Your task to perform on an android device: Open Android settings Image 0: 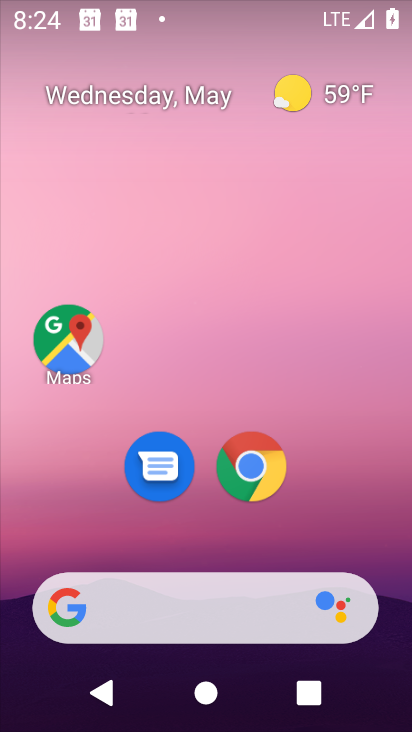
Step 0: drag from (333, 517) to (316, 220)
Your task to perform on an android device: Open Android settings Image 1: 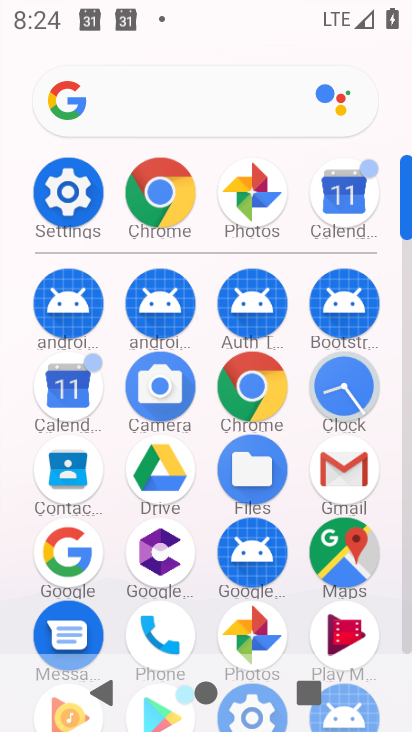
Step 1: click (63, 188)
Your task to perform on an android device: Open Android settings Image 2: 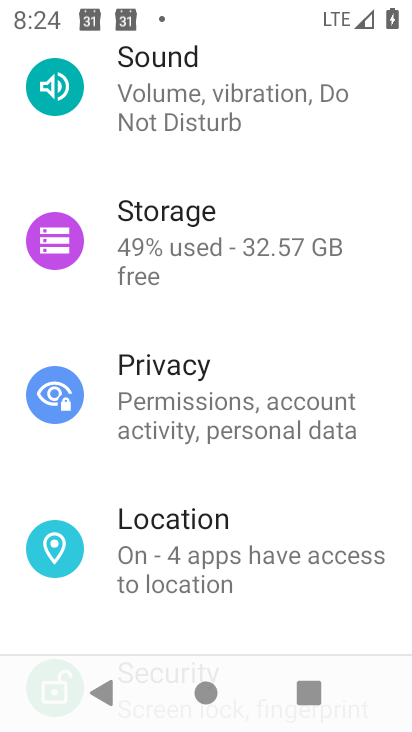
Step 2: task complete